Your task to perform on an android device: delete the emails in spam in the gmail app Image 0: 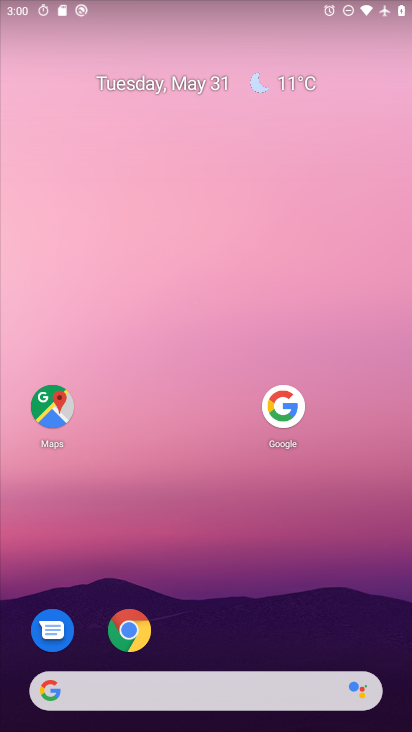
Step 0: drag from (201, 691) to (360, 106)
Your task to perform on an android device: delete the emails in spam in the gmail app Image 1: 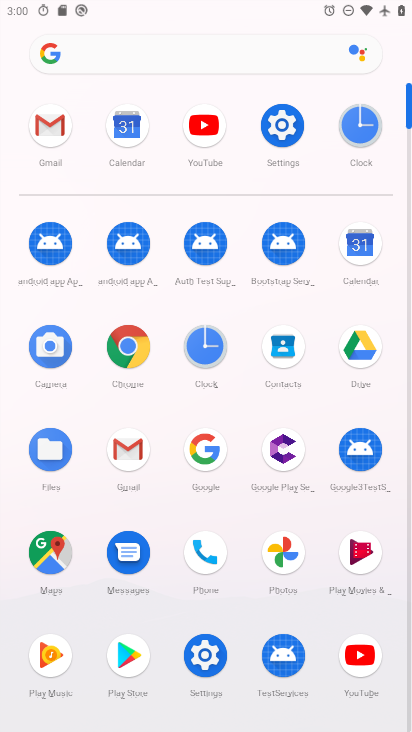
Step 1: click (51, 135)
Your task to perform on an android device: delete the emails in spam in the gmail app Image 2: 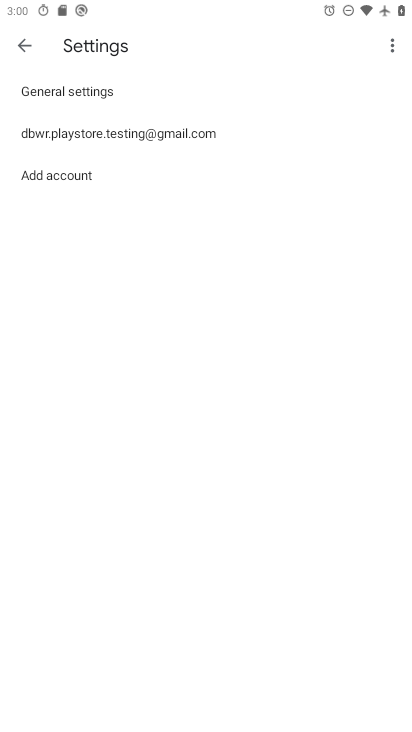
Step 2: click (24, 46)
Your task to perform on an android device: delete the emails in spam in the gmail app Image 3: 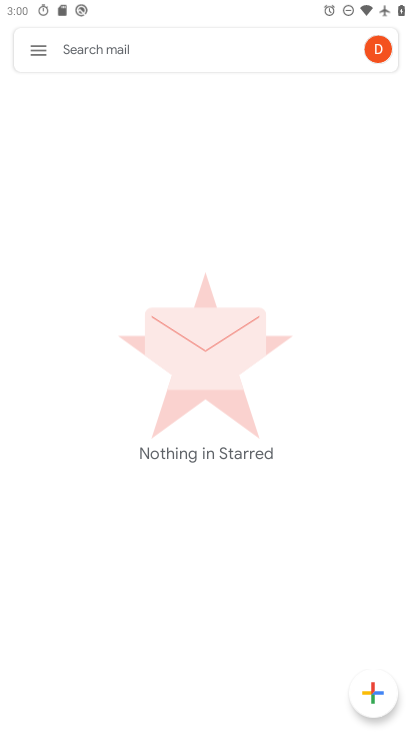
Step 3: click (45, 46)
Your task to perform on an android device: delete the emails in spam in the gmail app Image 4: 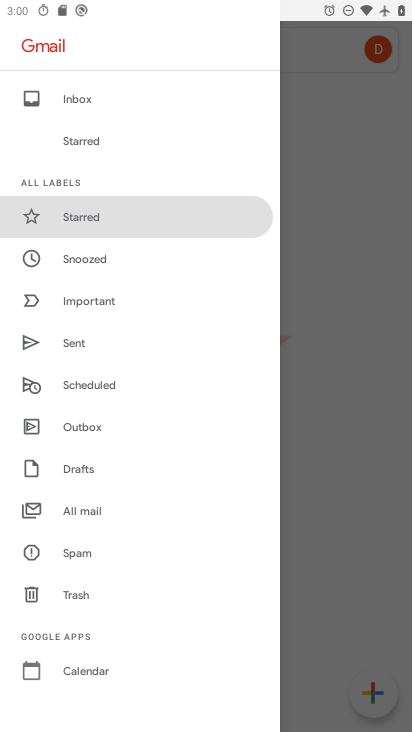
Step 4: click (82, 539)
Your task to perform on an android device: delete the emails in spam in the gmail app Image 5: 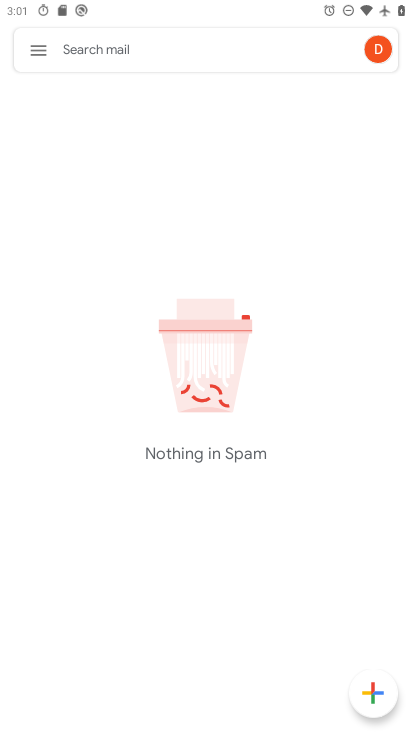
Step 5: task complete